Your task to perform on an android device: turn off wifi Image 0: 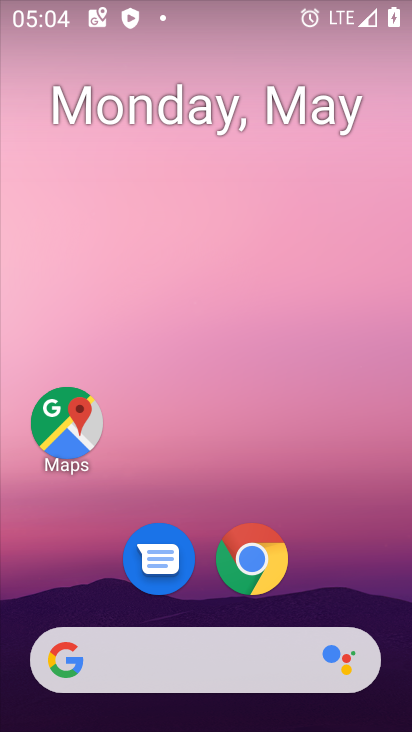
Step 0: drag from (318, 606) to (323, 76)
Your task to perform on an android device: turn off wifi Image 1: 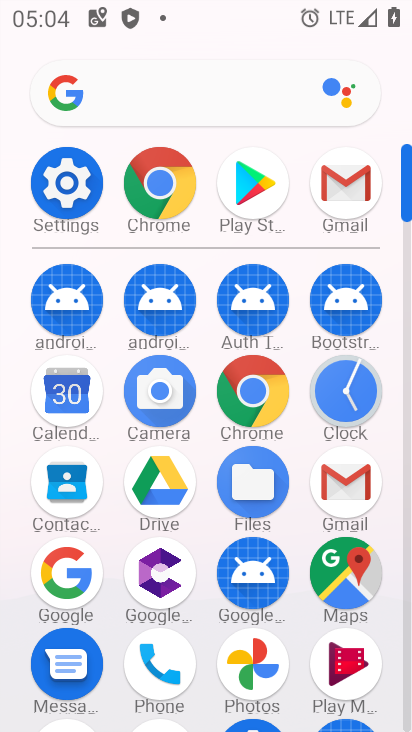
Step 1: click (65, 194)
Your task to perform on an android device: turn off wifi Image 2: 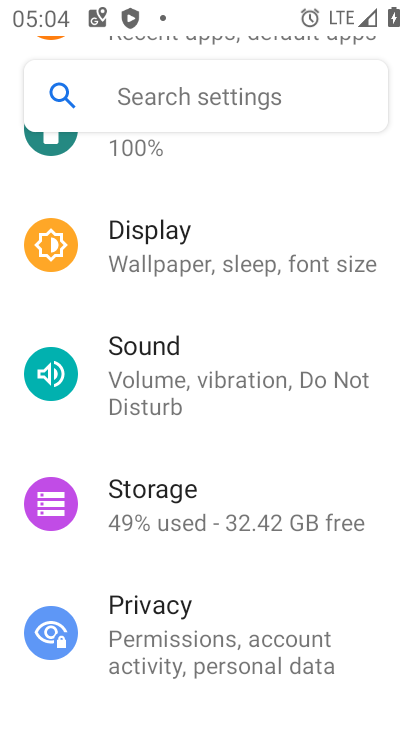
Step 2: drag from (174, 170) to (142, 725)
Your task to perform on an android device: turn off wifi Image 3: 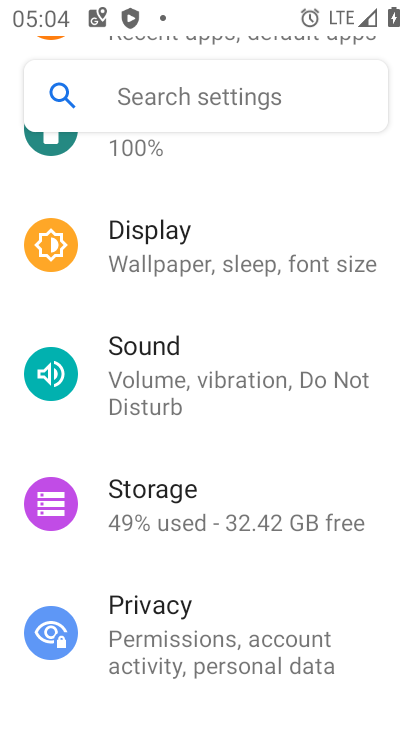
Step 3: drag from (169, 274) to (311, 702)
Your task to perform on an android device: turn off wifi Image 4: 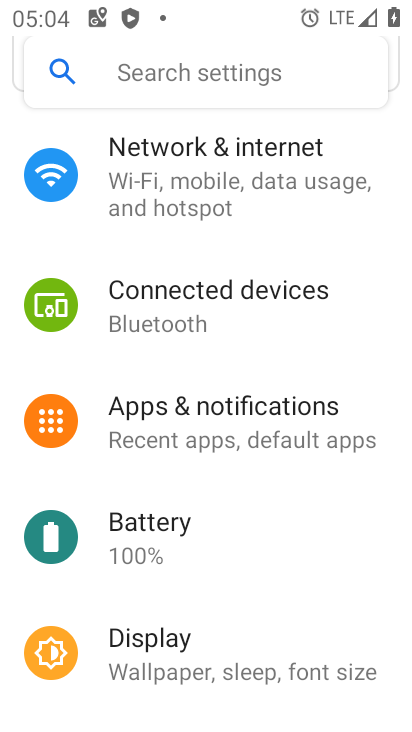
Step 4: click (228, 202)
Your task to perform on an android device: turn off wifi Image 5: 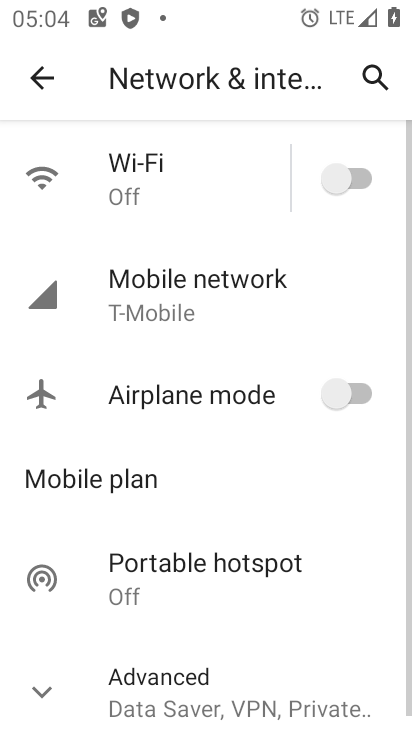
Step 5: task complete